Your task to perform on an android device: turn notification dots off Image 0: 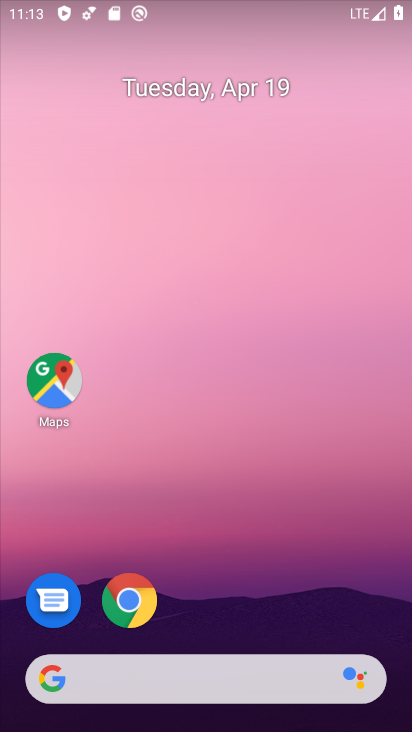
Step 0: drag from (363, 567) to (381, 4)
Your task to perform on an android device: turn notification dots off Image 1: 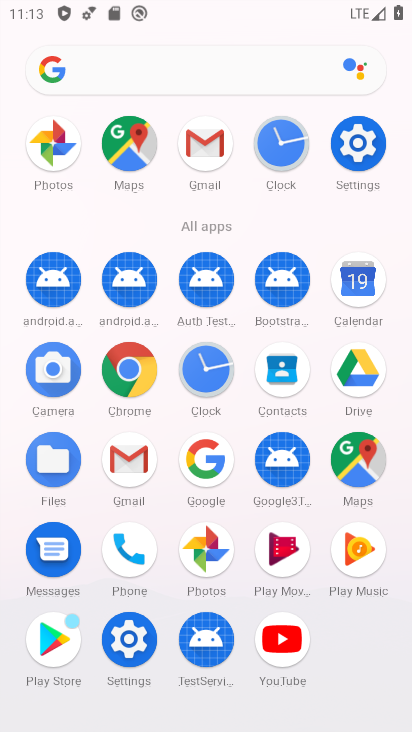
Step 1: click (358, 150)
Your task to perform on an android device: turn notification dots off Image 2: 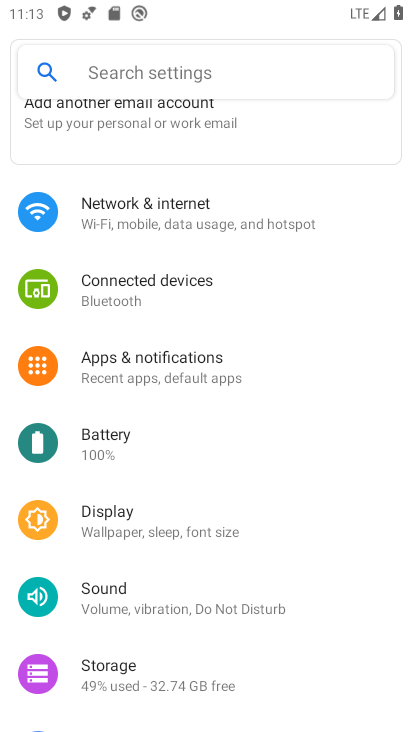
Step 2: click (173, 363)
Your task to perform on an android device: turn notification dots off Image 3: 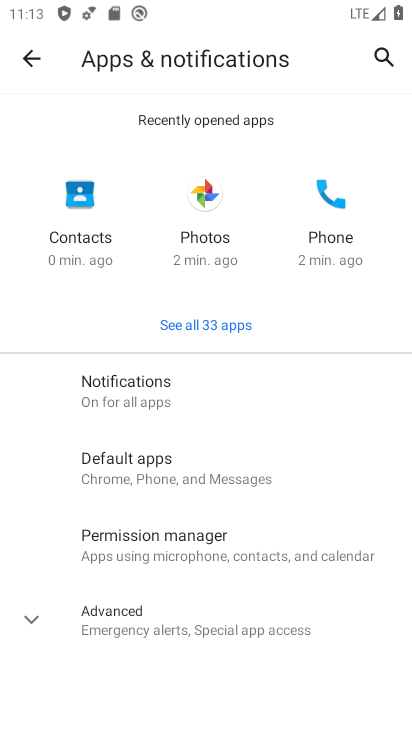
Step 3: click (118, 396)
Your task to perform on an android device: turn notification dots off Image 4: 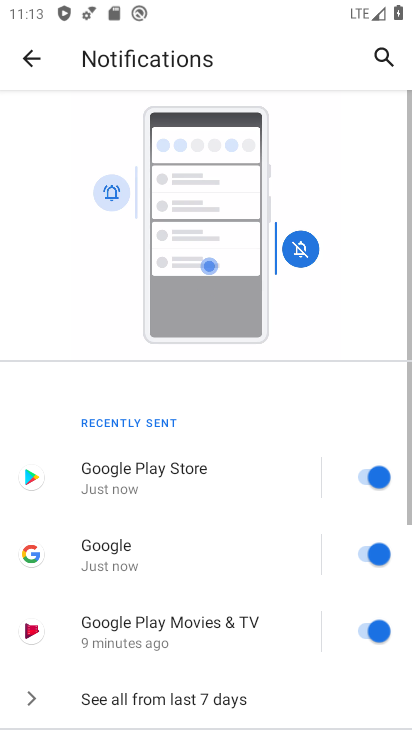
Step 4: drag from (181, 584) to (182, 105)
Your task to perform on an android device: turn notification dots off Image 5: 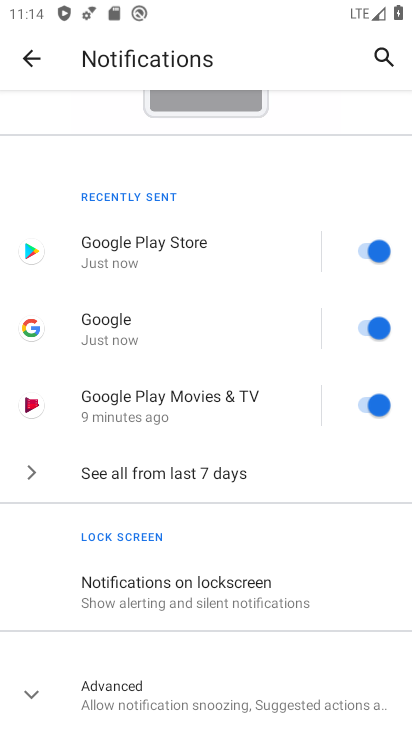
Step 5: click (31, 694)
Your task to perform on an android device: turn notification dots off Image 6: 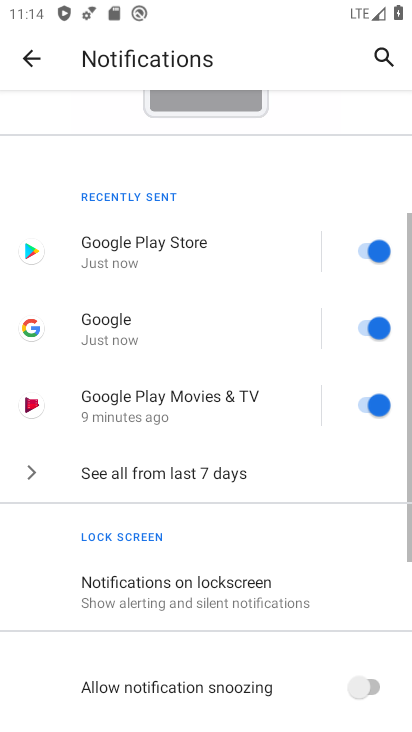
Step 6: drag from (192, 678) to (230, 178)
Your task to perform on an android device: turn notification dots off Image 7: 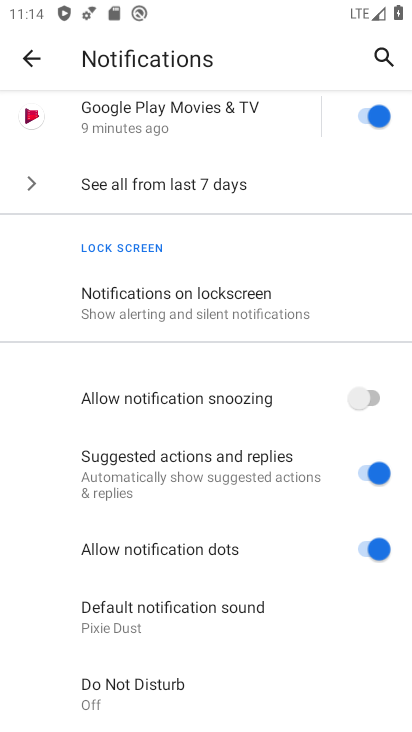
Step 7: click (383, 549)
Your task to perform on an android device: turn notification dots off Image 8: 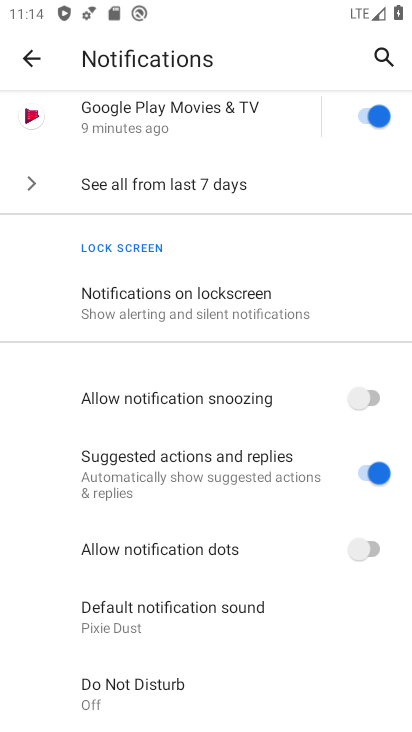
Step 8: task complete